Your task to perform on an android device: Open wifi settings Image 0: 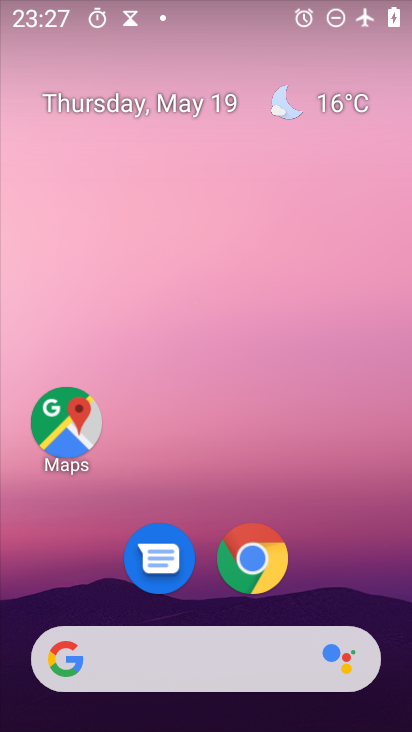
Step 0: drag from (226, 723) to (235, 88)
Your task to perform on an android device: Open wifi settings Image 1: 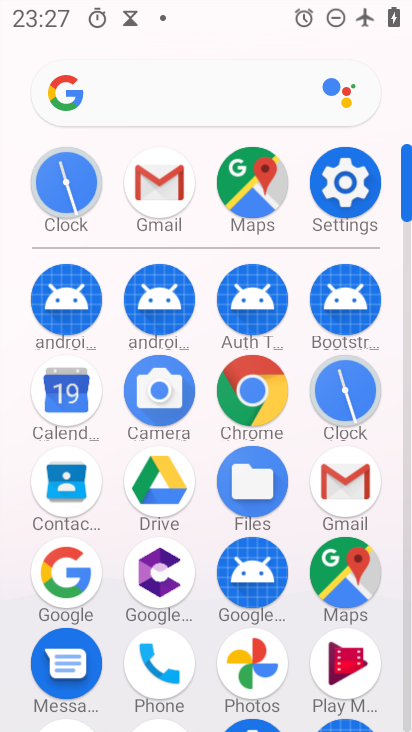
Step 1: click (349, 177)
Your task to perform on an android device: Open wifi settings Image 2: 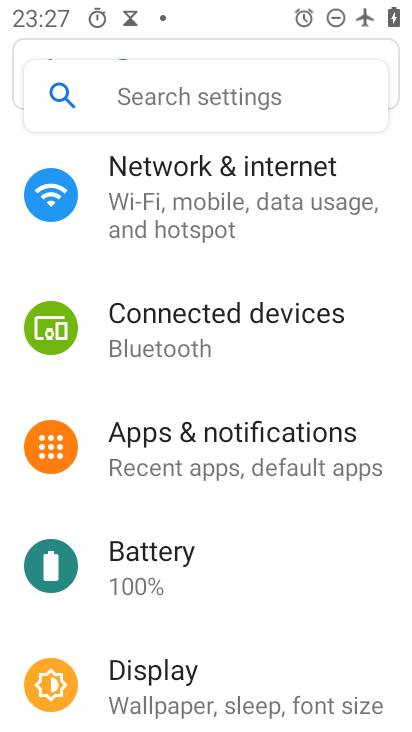
Step 2: drag from (254, 175) to (243, 644)
Your task to perform on an android device: Open wifi settings Image 3: 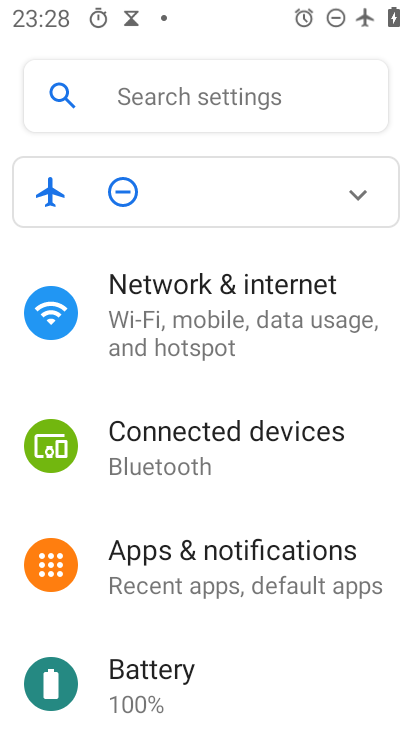
Step 3: click (203, 327)
Your task to perform on an android device: Open wifi settings Image 4: 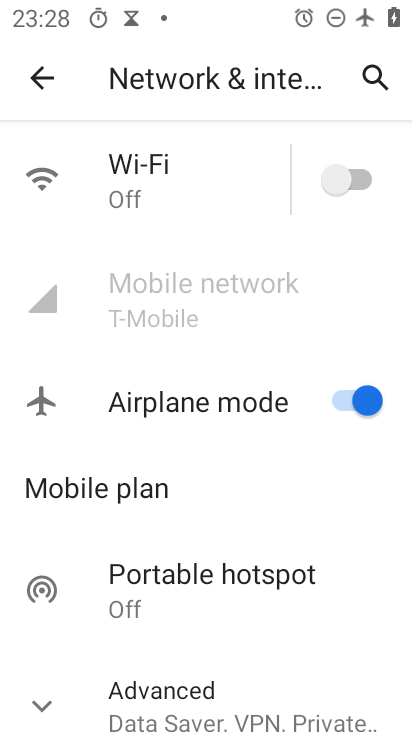
Step 4: click (132, 159)
Your task to perform on an android device: Open wifi settings Image 5: 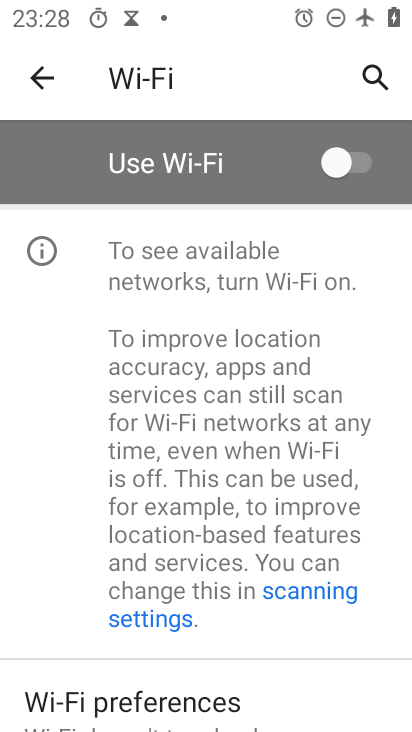
Step 5: task complete